Your task to perform on an android device: Open notification settings Image 0: 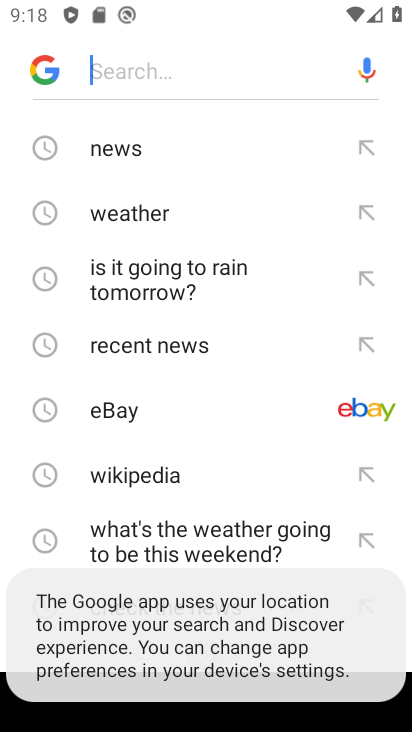
Step 0: press home button
Your task to perform on an android device: Open notification settings Image 1: 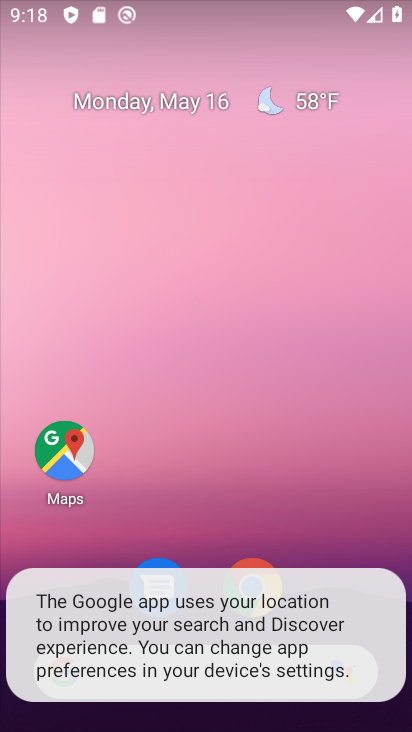
Step 1: drag from (346, 484) to (346, 71)
Your task to perform on an android device: Open notification settings Image 2: 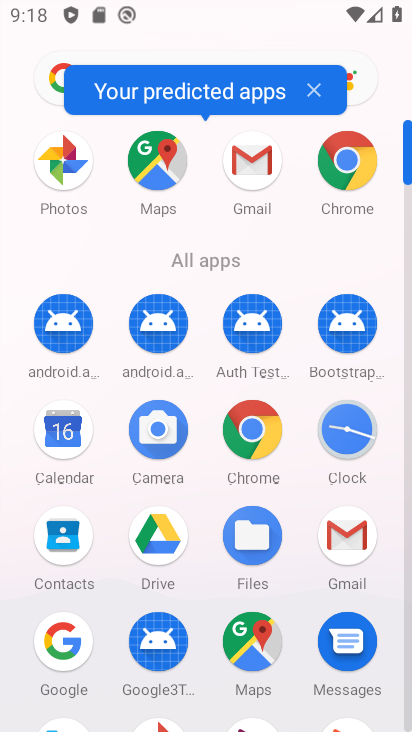
Step 2: drag from (300, 604) to (259, 181)
Your task to perform on an android device: Open notification settings Image 3: 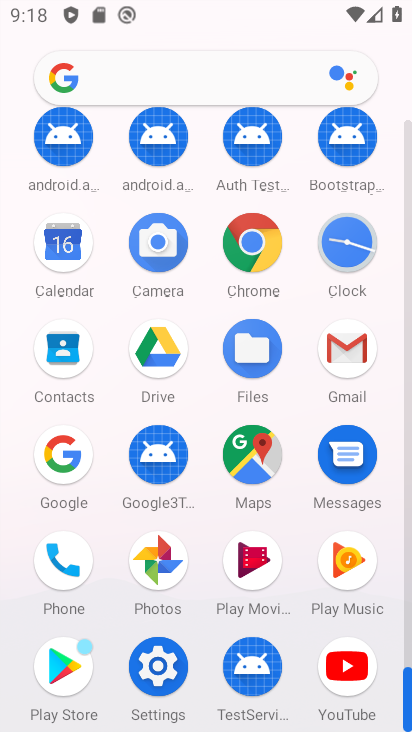
Step 3: click (153, 673)
Your task to perform on an android device: Open notification settings Image 4: 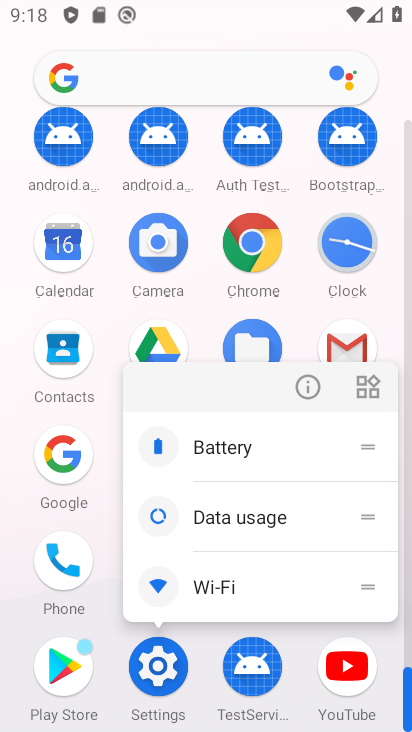
Step 4: click (172, 673)
Your task to perform on an android device: Open notification settings Image 5: 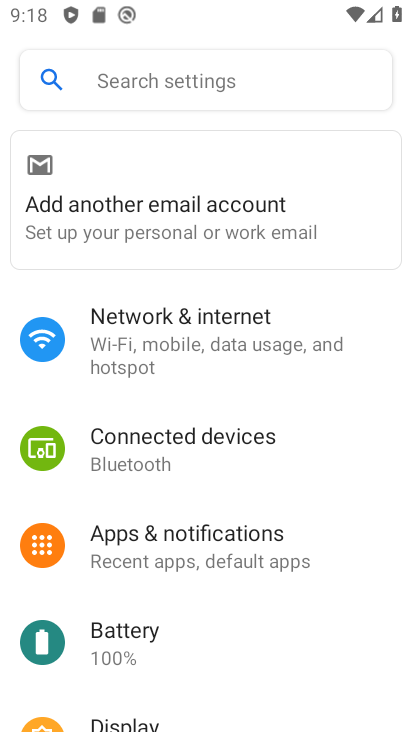
Step 5: click (155, 554)
Your task to perform on an android device: Open notification settings Image 6: 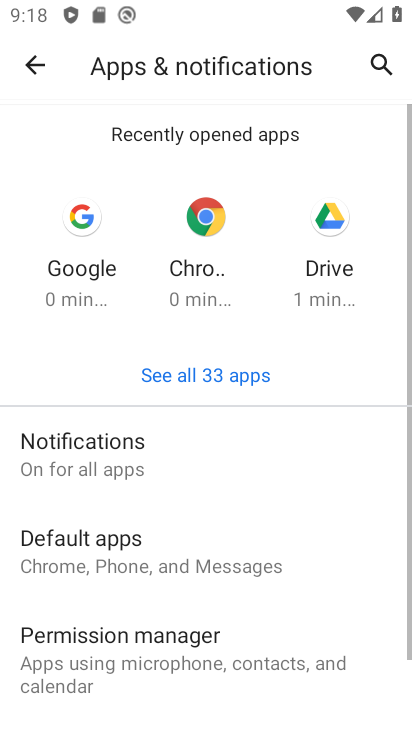
Step 6: click (109, 476)
Your task to perform on an android device: Open notification settings Image 7: 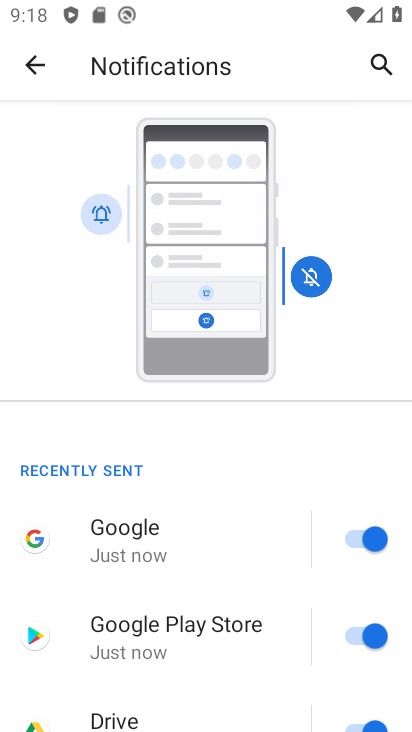
Step 7: task complete